Your task to perform on an android device: see sites visited before in the chrome app Image 0: 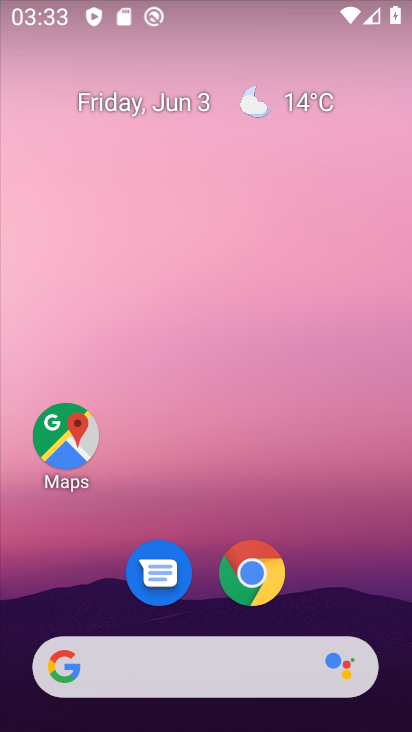
Step 0: drag from (333, 638) to (379, 15)
Your task to perform on an android device: see sites visited before in the chrome app Image 1: 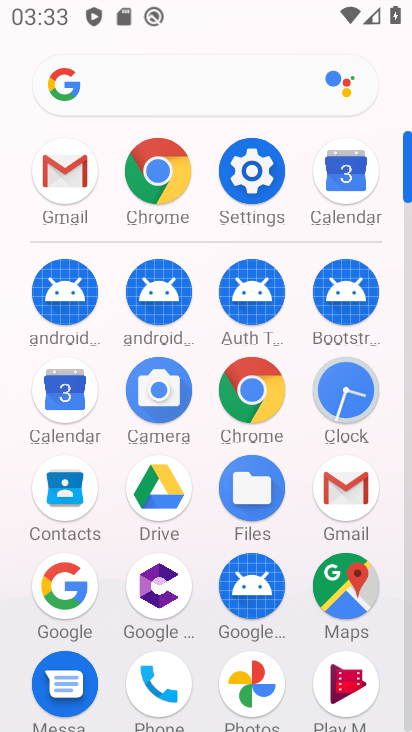
Step 1: click (237, 395)
Your task to perform on an android device: see sites visited before in the chrome app Image 2: 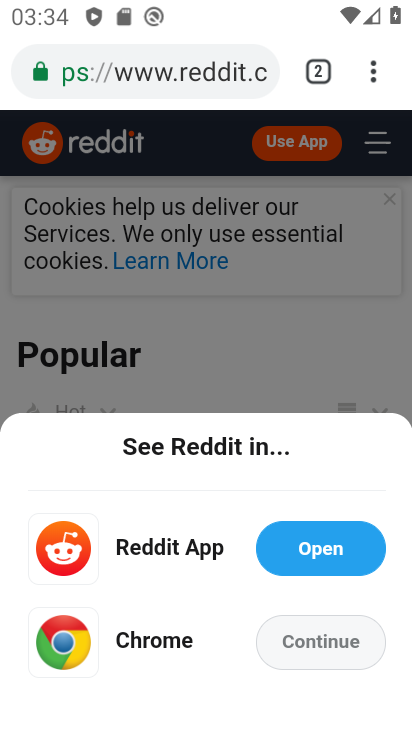
Step 2: press home button
Your task to perform on an android device: see sites visited before in the chrome app Image 3: 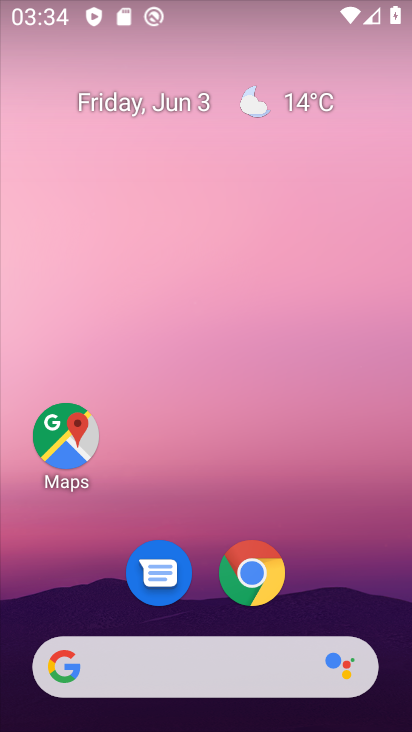
Step 3: drag from (243, 662) to (239, 150)
Your task to perform on an android device: see sites visited before in the chrome app Image 4: 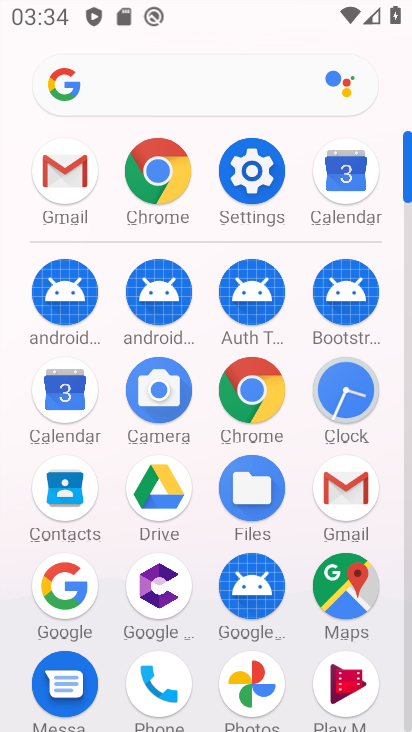
Step 4: click (247, 401)
Your task to perform on an android device: see sites visited before in the chrome app Image 5: 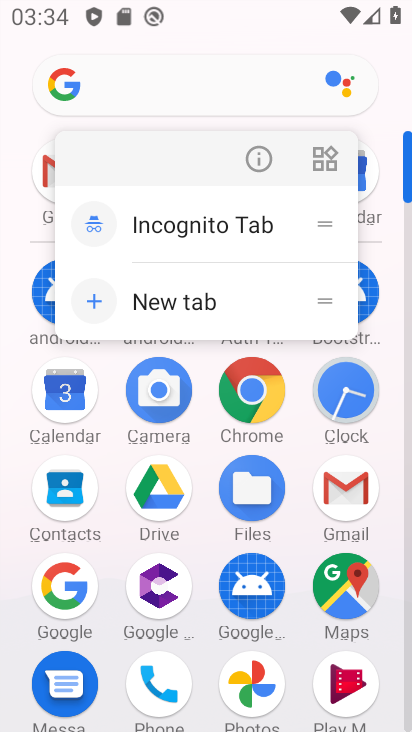
Step 5: click (255, 393)
Your task to perform on an android device: see sites visited before in the chrome app Image 6: 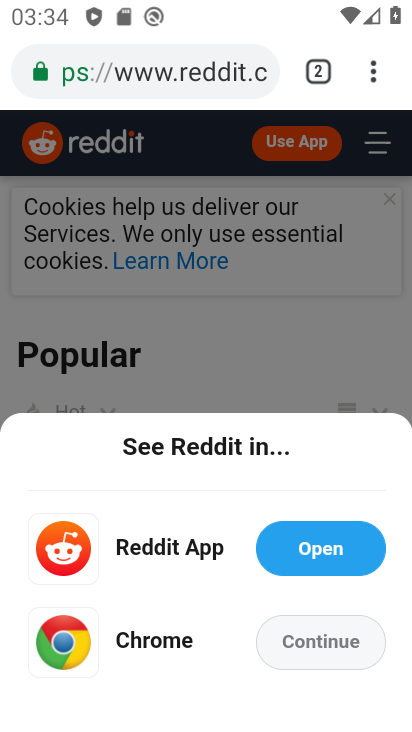
Step 6: task complete